Your task to perform on an android device: What is the recent news? Image 0: 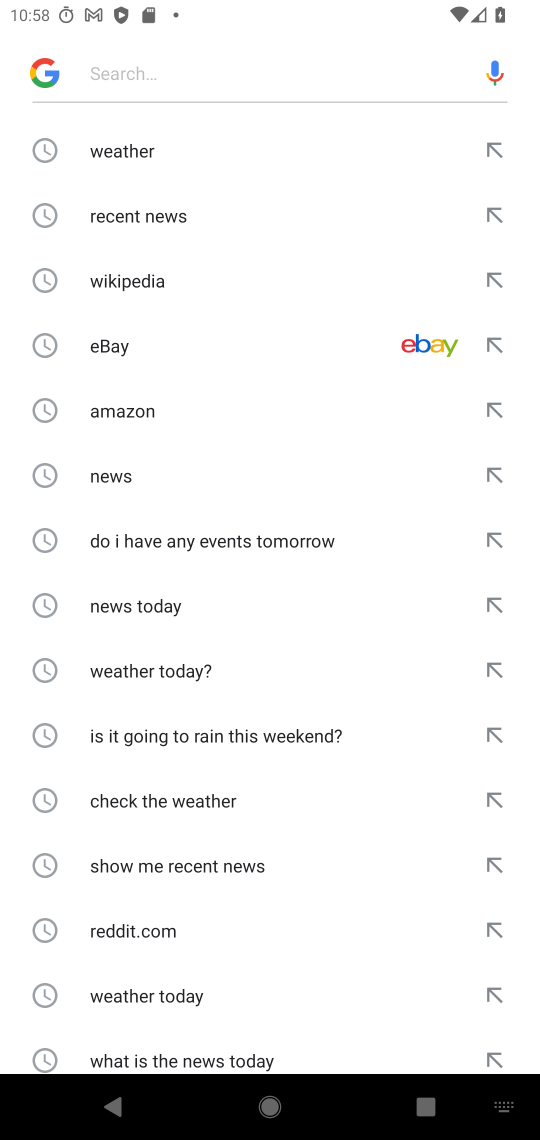
Step 0: press home button
Your task to perform on an android device: What is the recent news? Image 1: 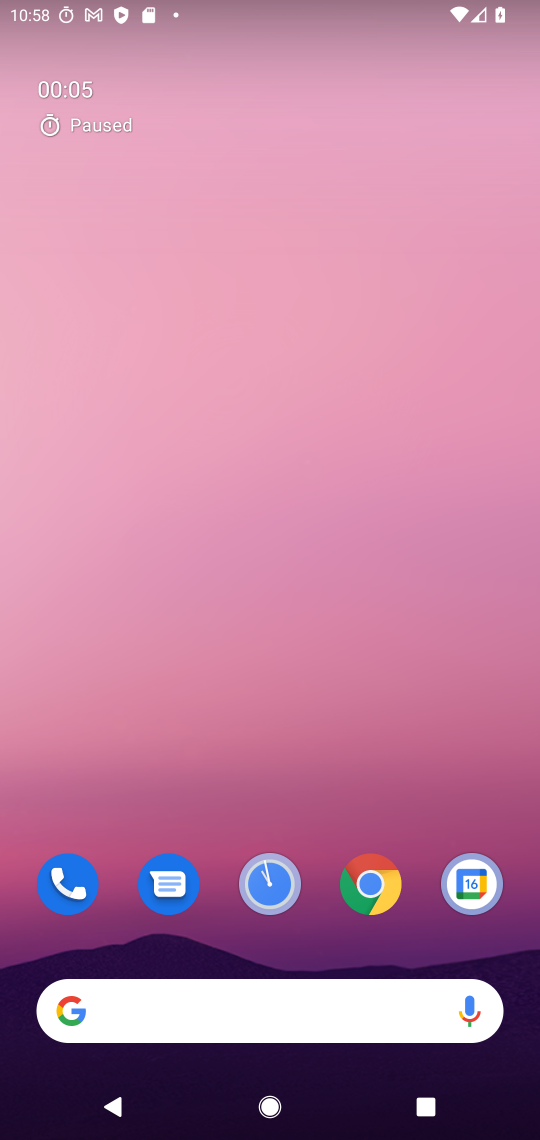
Step 1: click (284, 995)
Your task to perform on an android device: What is the recent news? Image 2: 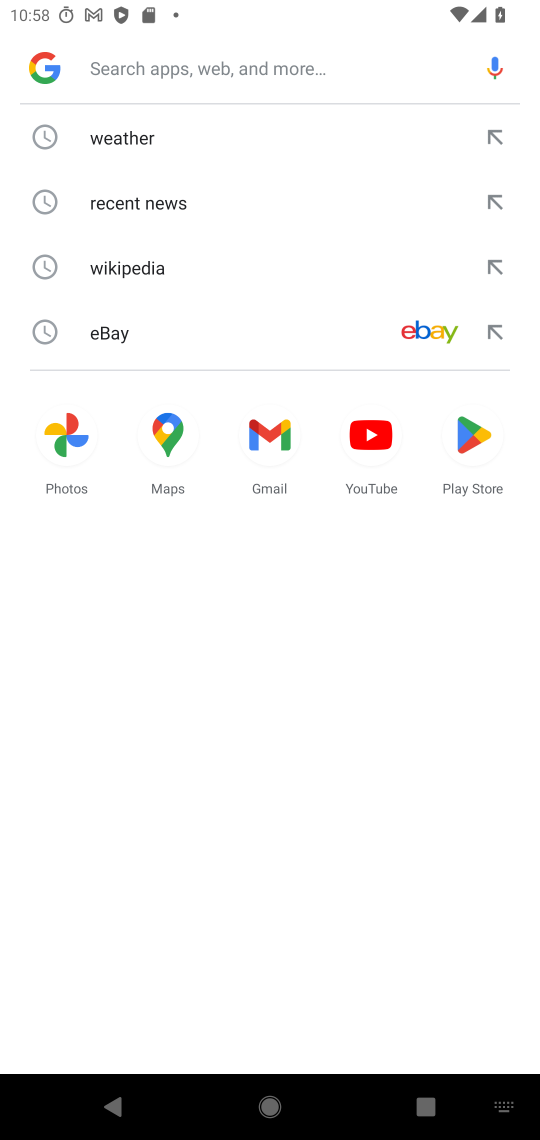
Step 2: click (160, 210)
Your task to perform on an android device: What is the recent news? Image 3: 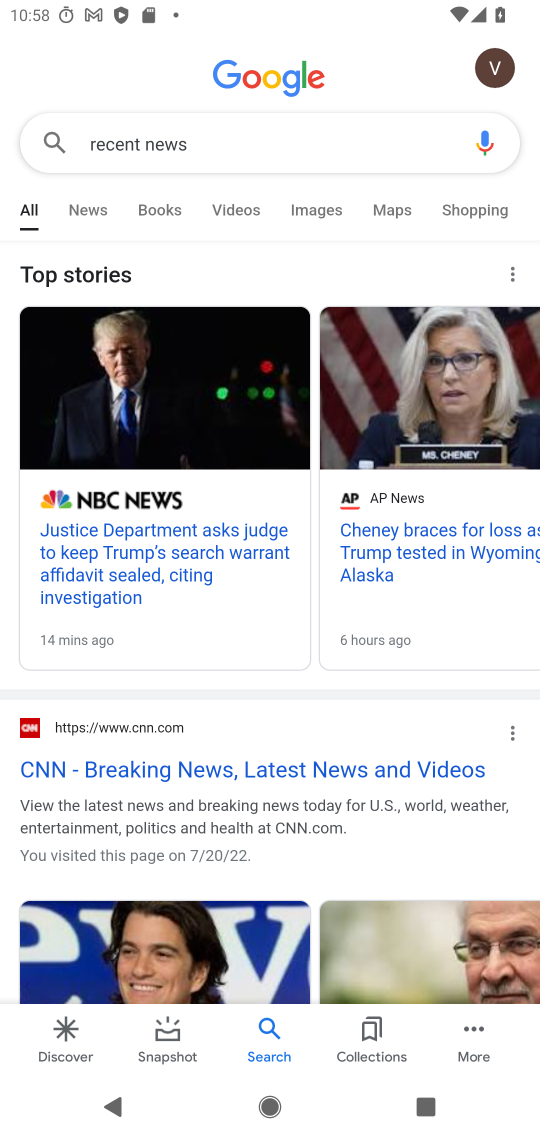
Step 3: task complete